Your task to perform on an android device: open sync settings in chrome Image 0: 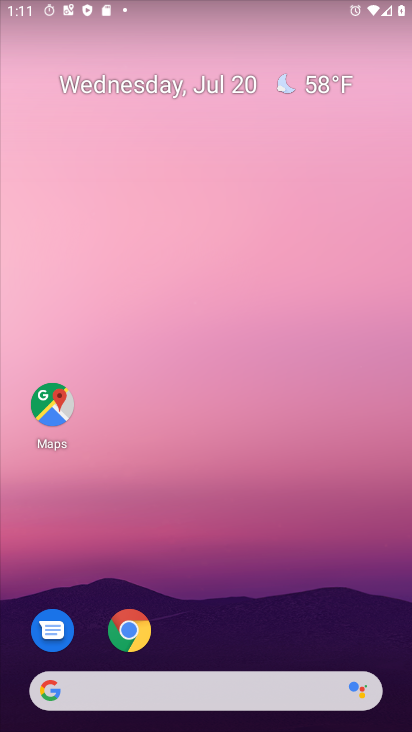
Step 0: click (131, 638)
Your task to perform on an android device: open sync settings in chrome Image 1: 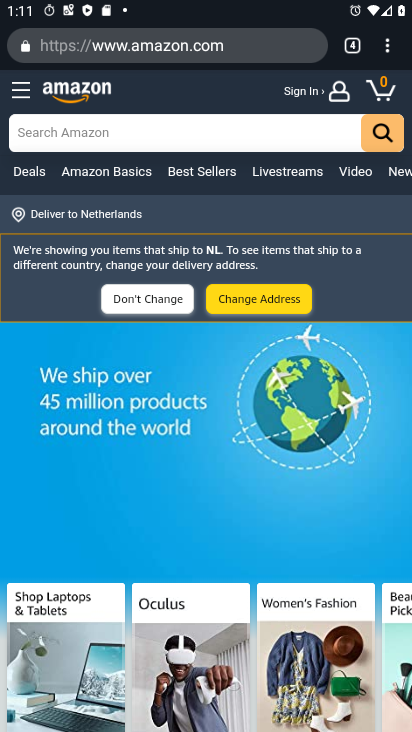
Step 1: drag from (389, 47) to (257, 548)
Your task to perform on an android device: open sync settings in chrome Image 2: 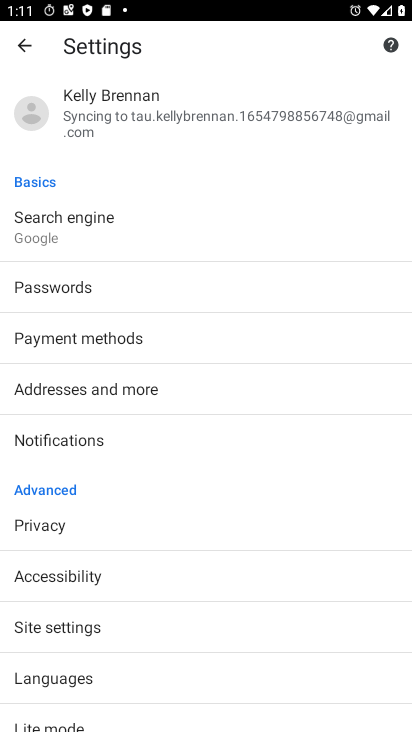
Step 2: click (173, 122)
Your task to perform on an android device: open sync settings in chrome Image 3: 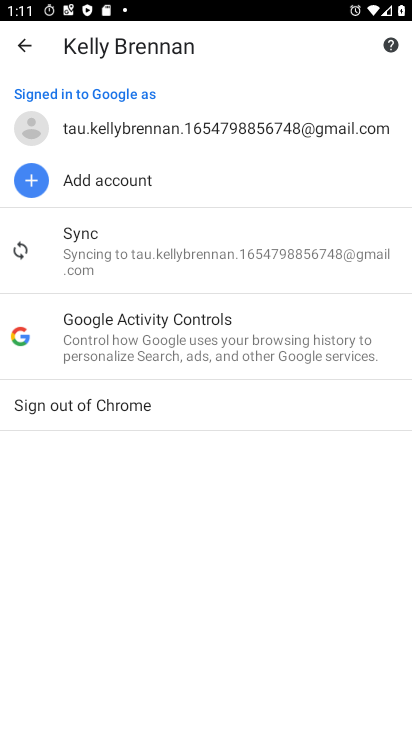
Step 3: click (161, 249)
Your task to perform on an android device: open sync settings in chrome Image 4: 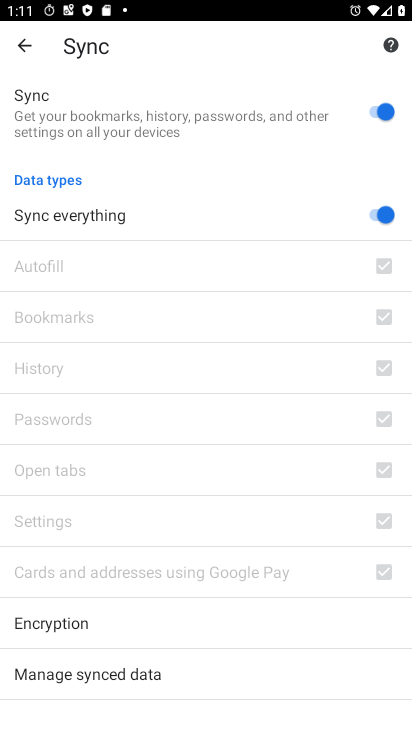
Step 4: task complete